Your task to perform on an android device: Open accessibility settings Image 0: 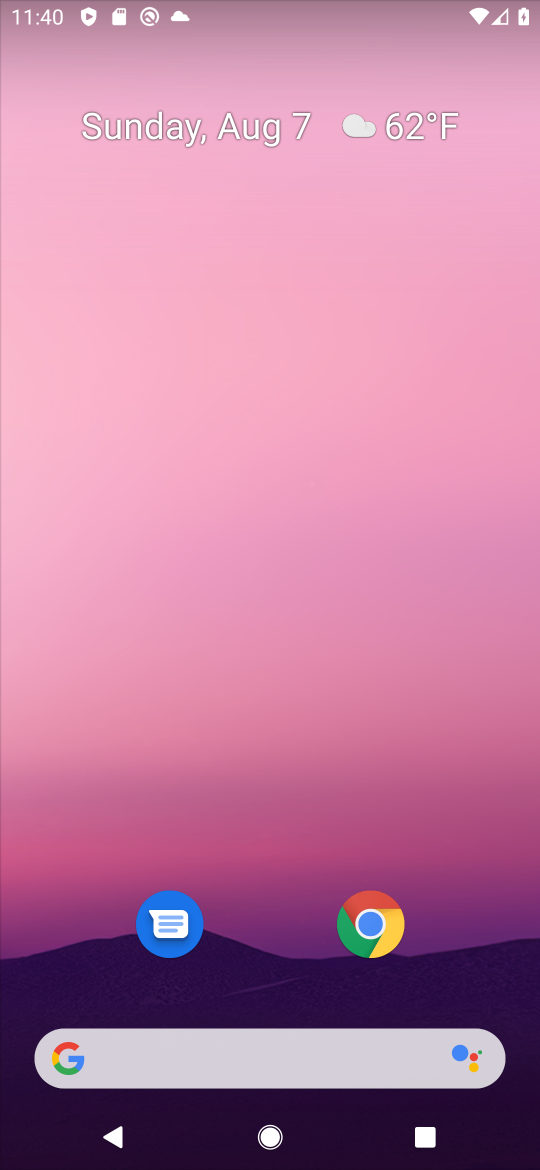
Step 0: drag from (237, 1020) to (278, 413)
Your task to perform on an android device: Open accessibility settings Image 1: 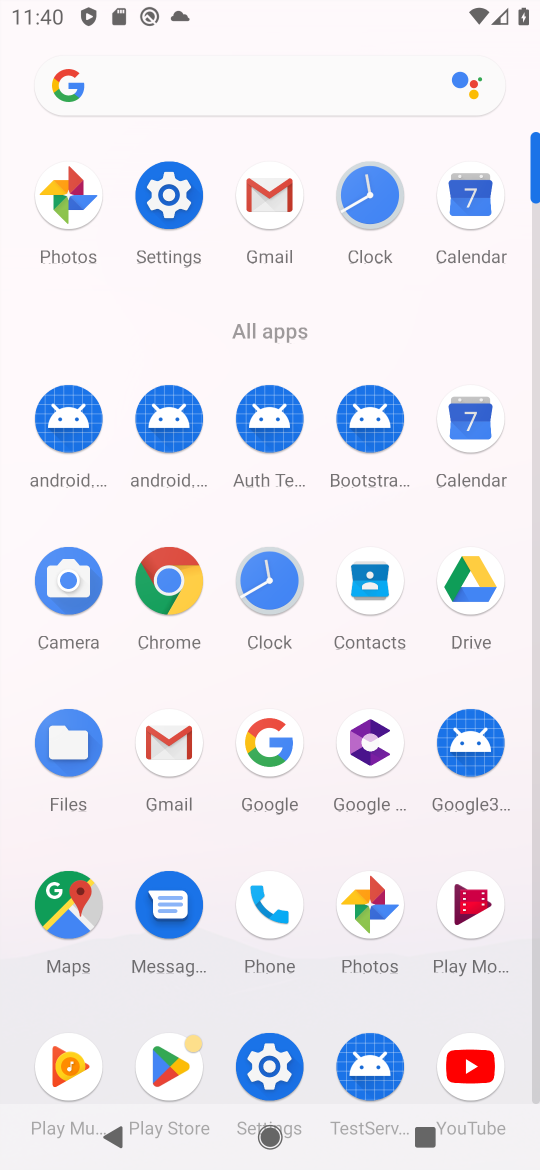
Step 1: click (263, 1070)
Your task to perform on an android device: Open accessibility settings Image 2: 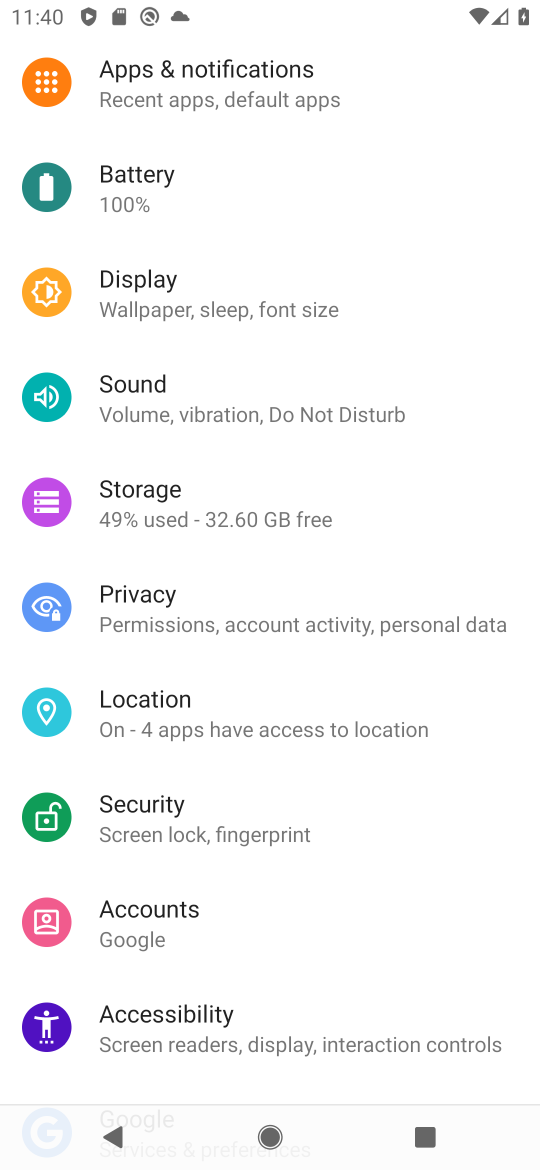
Step 2: click (144, 1038)
Your task to perform on an android device: Open accessibility settings Image 3: 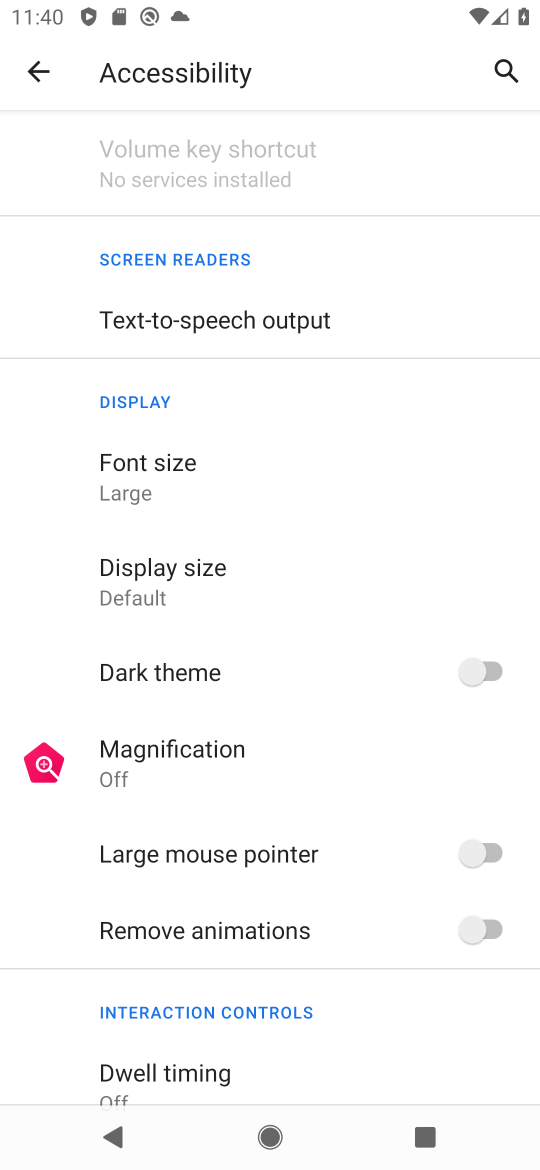
Step 3: task complete